Your task to perform on an android device: open app "Facebook Lite" Image 0: 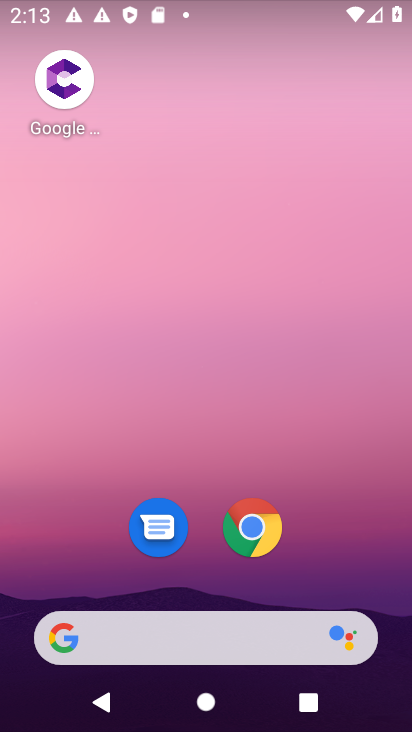
Step 0: drag from (279, 616) to (266, 69)
Your task to perform on an android device: open app "Facebook Lite" Image 1: 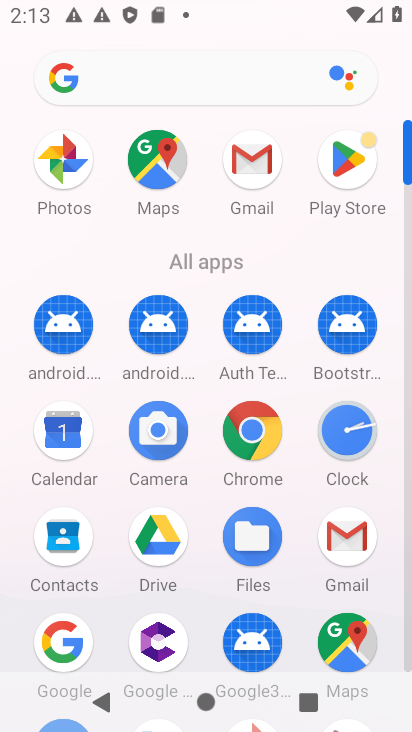
Step 1: drag from (300, 608) to (299, 203)
Your task to perform on an android device: open app "Facebook Lite" Image 2: 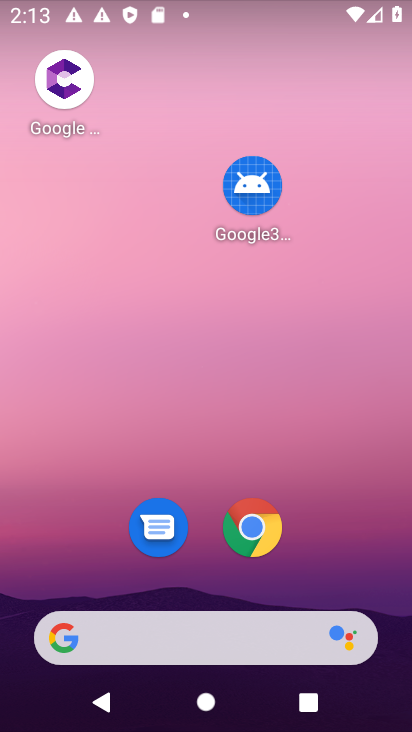
Step 2: drag from (310, 657) to (295, 1)
Your task to perform on an android device: open app "Facebook Lite" Image 3: 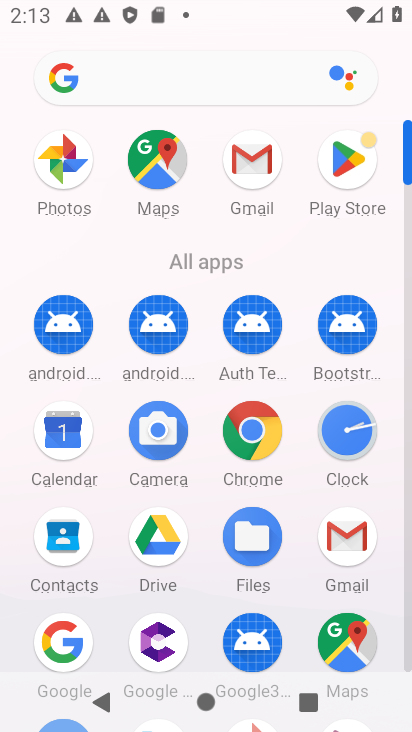
Step 3: drag from (295, 532) to (299, 238)
Your task to perform on an android device: open app "Facebook Lite" Image 4: 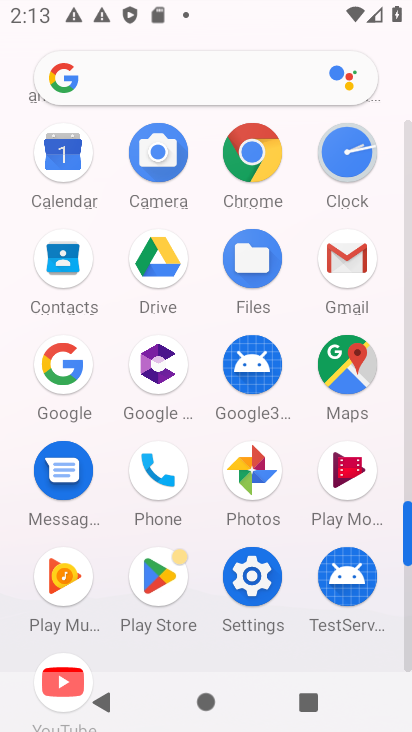
Step 4: click (153, 581)
Your task to perform on an android device: open app "Facebook Lite" Image 5: 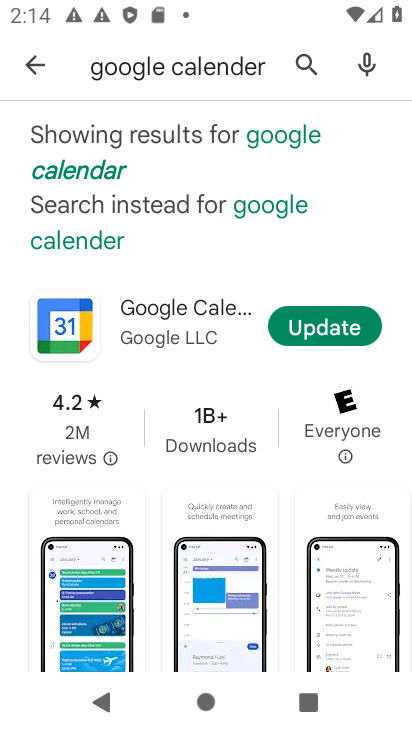
Step 5: click (308, 59)
Your task to perform on an android device: open app "Facebook Lite" Image 6: 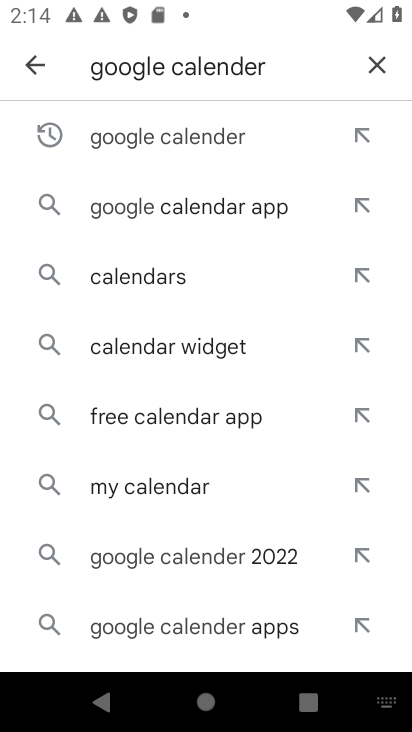
Step 6: click (375, 56)
Your task to perform on an android device: open app "Facebook Lite" Image 7: 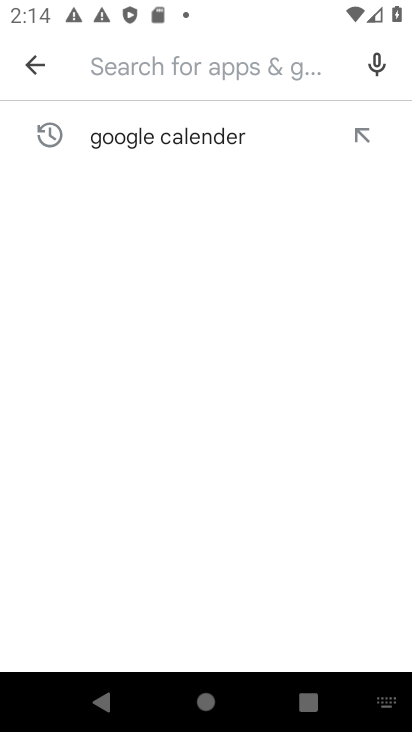
Step 7: type "facebook lite"
Your task to perform on an android device: open app "Facebook Lite" Image 8: 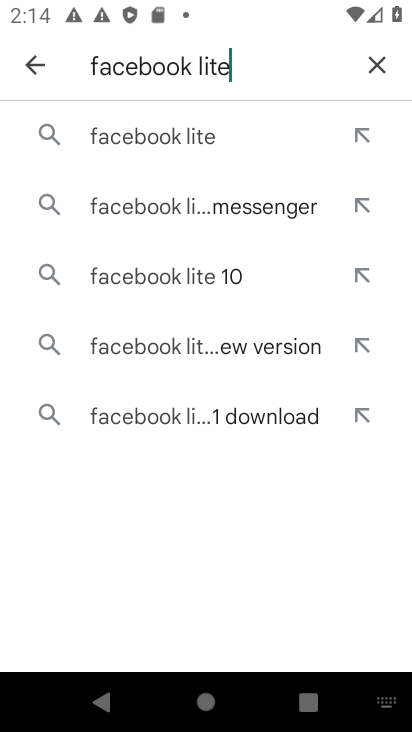
Step 8: click (152, 134)
Your task to perform on an android device: open app "Facebook Lite" Image 9: 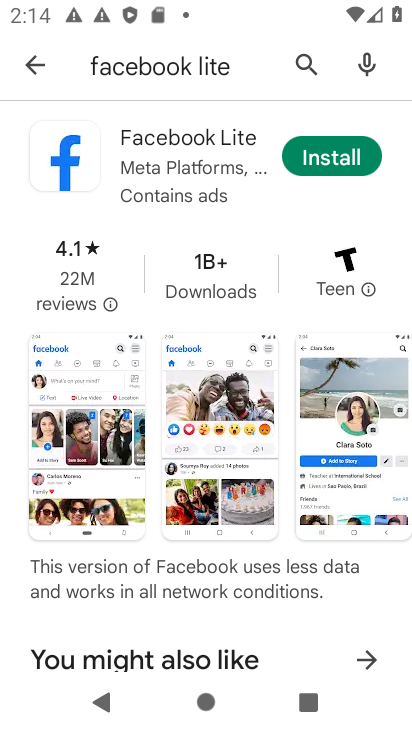
Step 9: task complete